Your task to perform on an android device: turn on javascript in the chrome app Image 0: 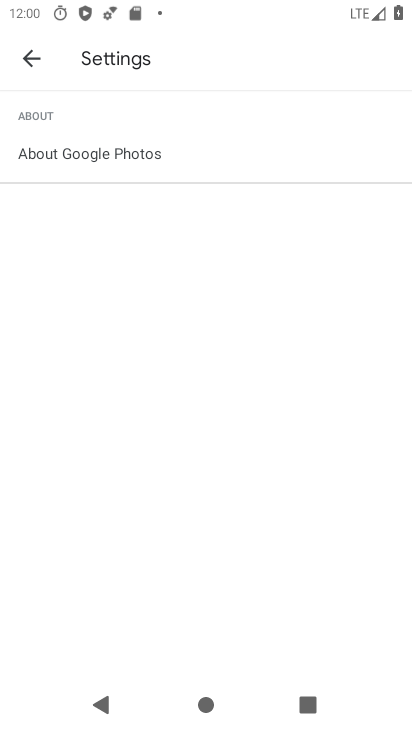
Step 0: press home button
Your task to perform on an android device: turn on javascript in the chrome app Image 1: 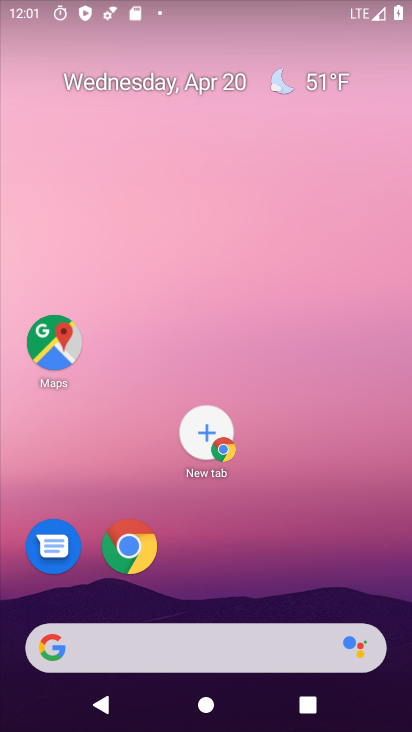
Step 1: click (129, 551)
Your task to perform on an android device: turn on javascript in the chrome app Image 2: 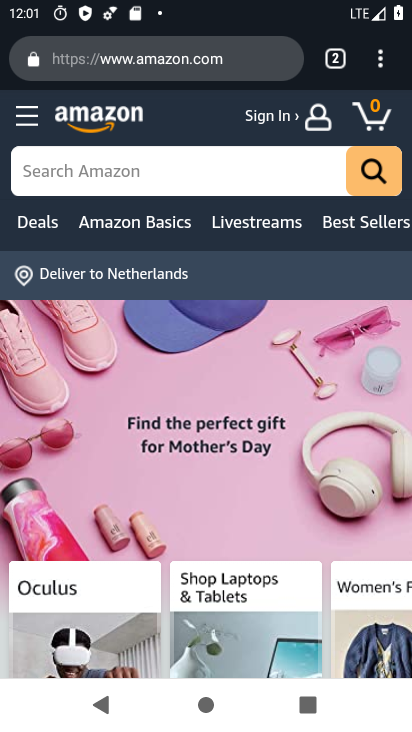
Step 2: click (385, 66)
Your task to perform on an android device: turn on javascript in the chrome app Image 3: 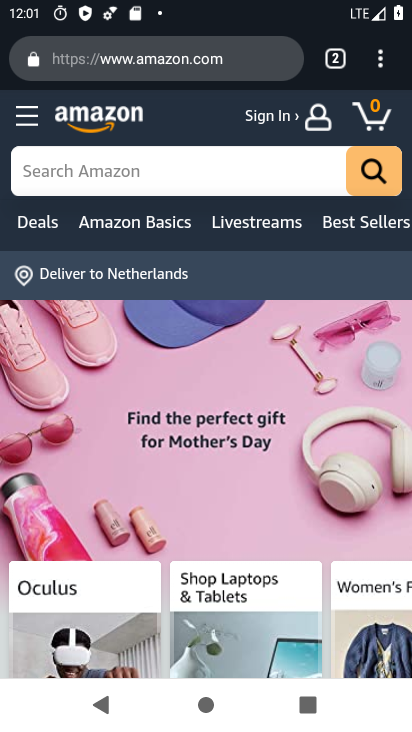
Step 3: click (385, 66)
Your task to perform on an android device: turn on javascript in the chrome app Image 4: 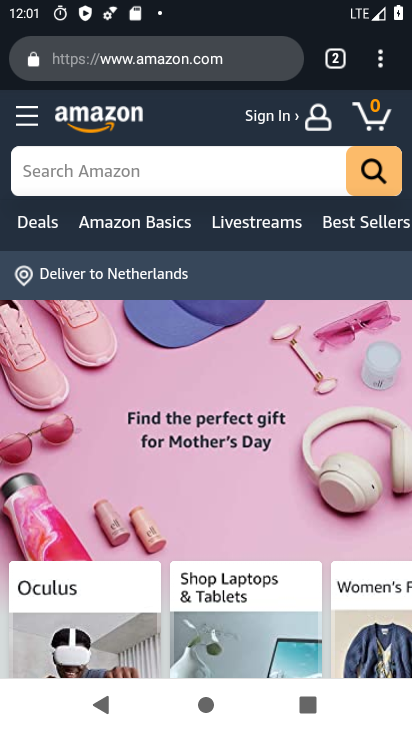
Step 4: click (385, 50)
Your task to perform on an android device: turn on javascript in the chrome app Image 5: 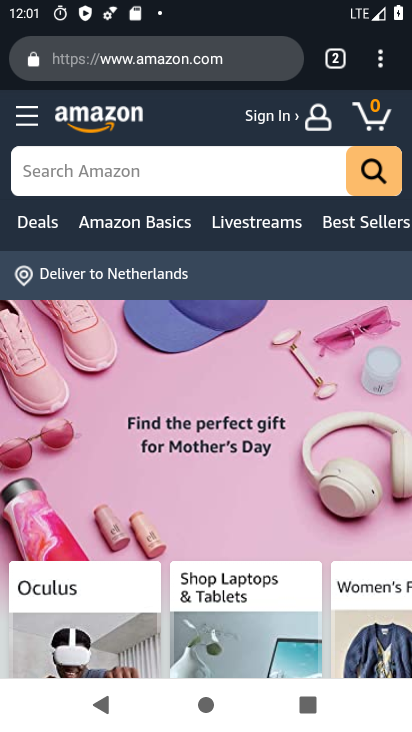
Step 5: click (385, 50)
Your task to perform on an android device: turn on javascript in the chrome app Image 6: 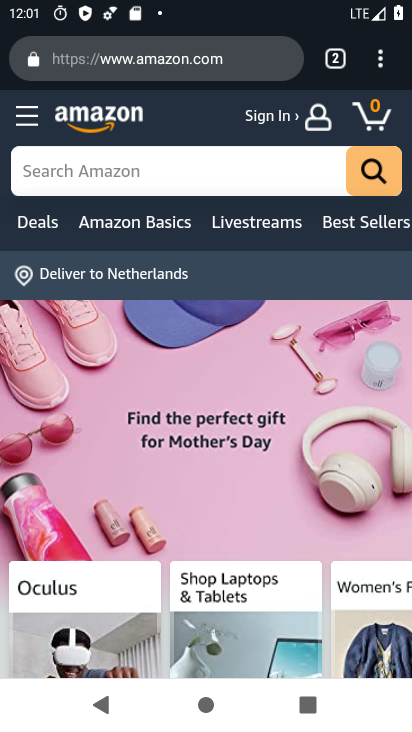
Step 6: click (385, 50)
Your task to perform on an android device: turn on javascript in the chrome app Image 7: 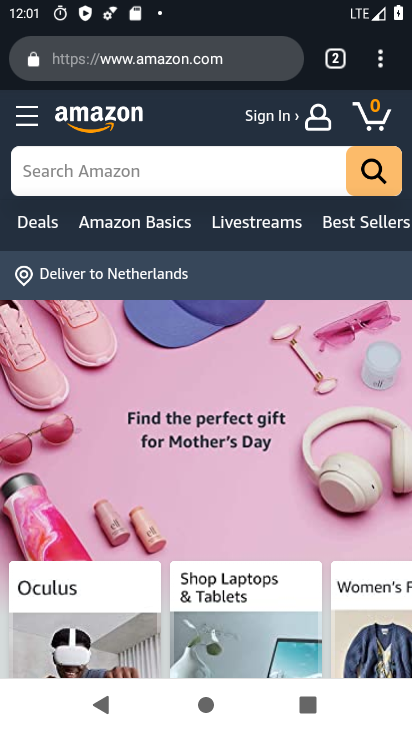
Step 7: click (383, 53)
Your task to perform on an android device: turn on javascript in the chrome app Image 8: 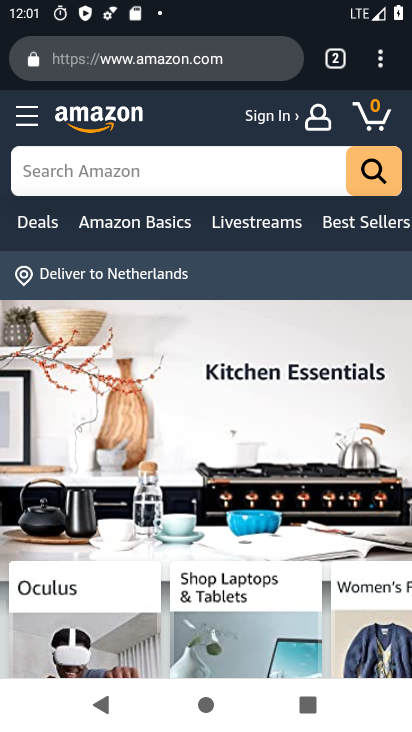
Step 8: click (383, 53)
Your task to perform on an android device: turn on javascript in the chrome app Image 9: 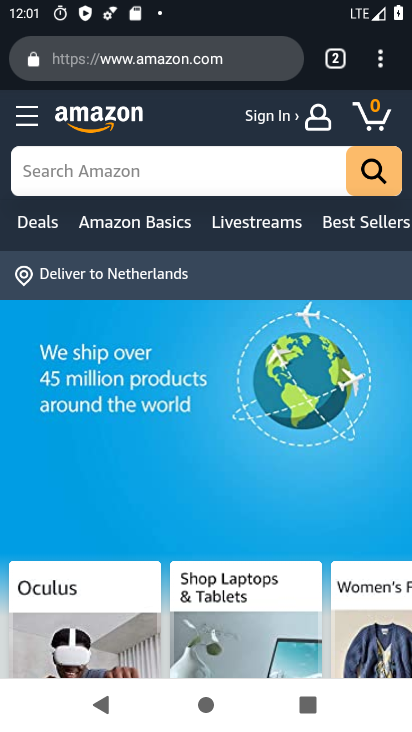
Step 9: click (383, 53)
Your task to perform on an android device: turn on javascript in the chrome app Image 10: 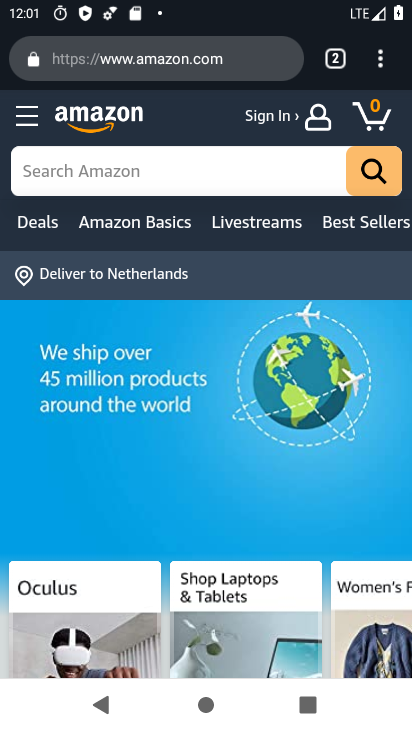
Step 10: click (376, 51)
Your task to perform on an android device: turn on javascript in the chrome app Image 11: 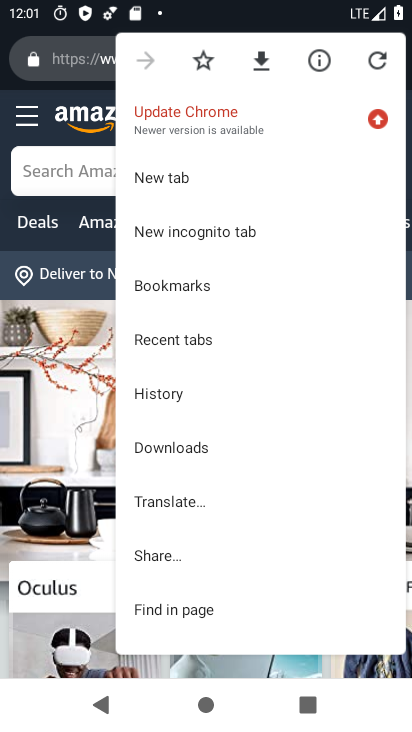
Step 11: drag from (193, 560) to (231, 7)
Your task to perform on an android device: turn on javascript in the chrome app Image 12: 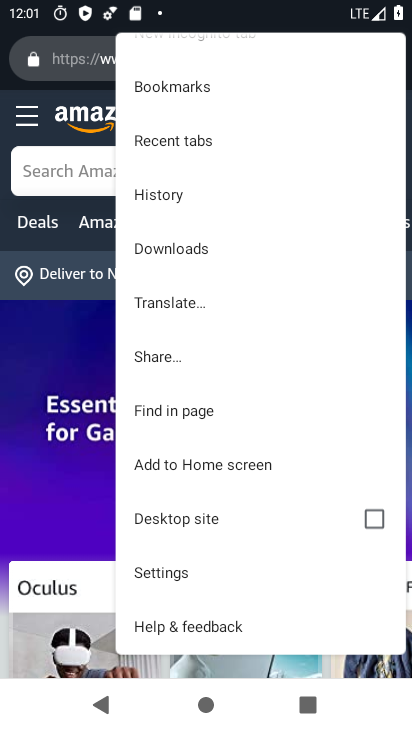
Step 12: click (161, 563)
Your task to perform on an android device: turn on javascript in the chrome app Image 13: 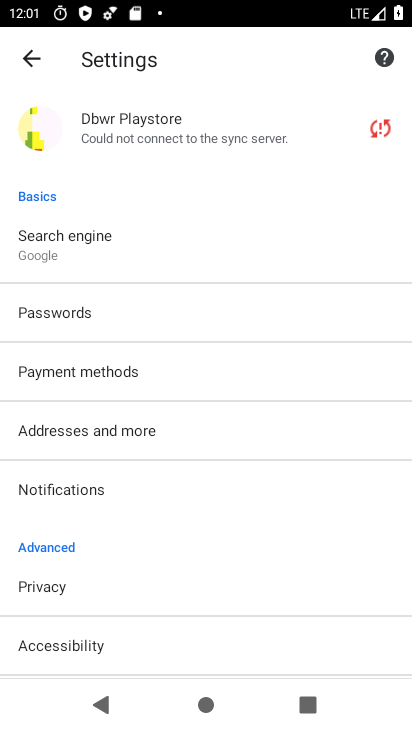
Step 13: drag from (161, 563) to (74, 33)
Your task to perform on an android device: turn on javascript in the chrome app Image 14: 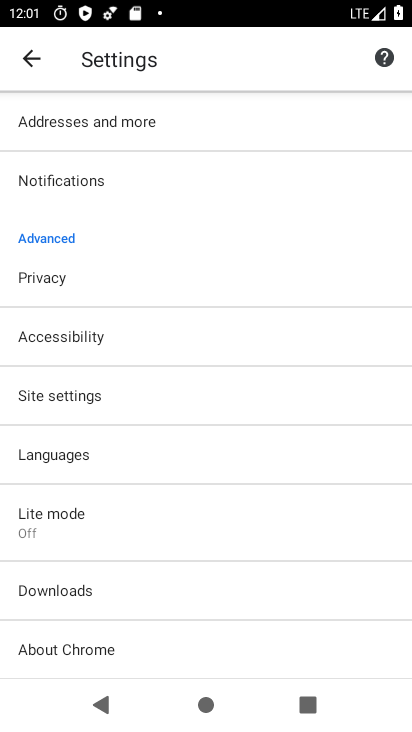
Step 14: click (46, 413)
Your task to perform on an android device: turn on javascript in the chrome app Image 15: 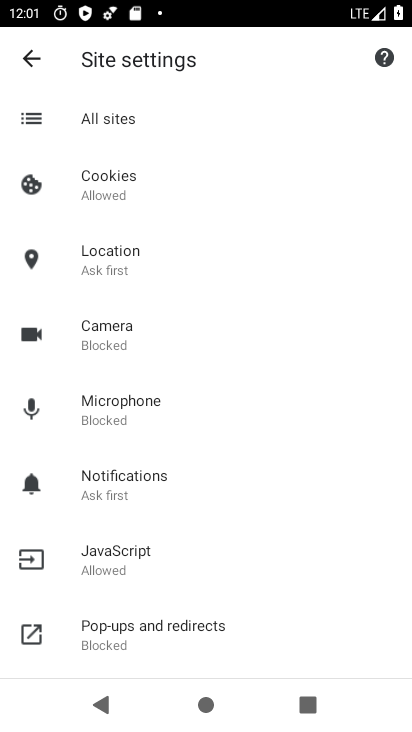
Step 15: click (182, 566)
Your task to perform on an android device: turn on javascript in the chrome app Image 16: 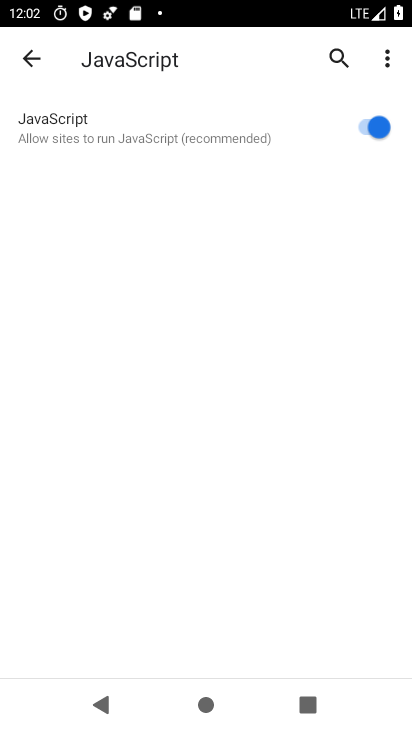
Step 16: task complete